Your task to perform on an android device: toggle translation in the chrome app Image 0: 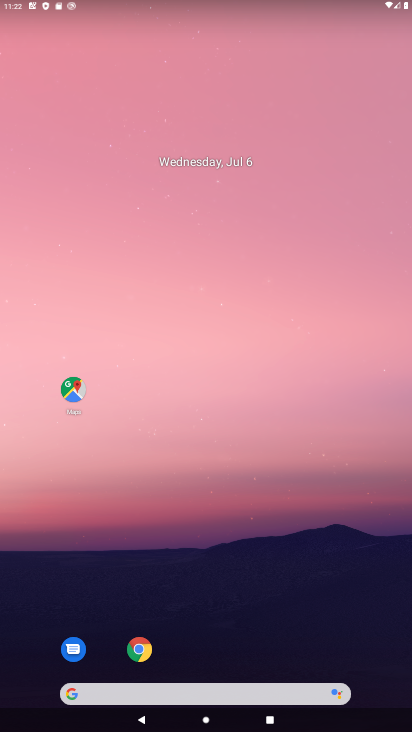
Step 0: drag from (375, 665) to (187, 0)
Your task to perform on an android device: toggle translation in the chrome app Image 1: 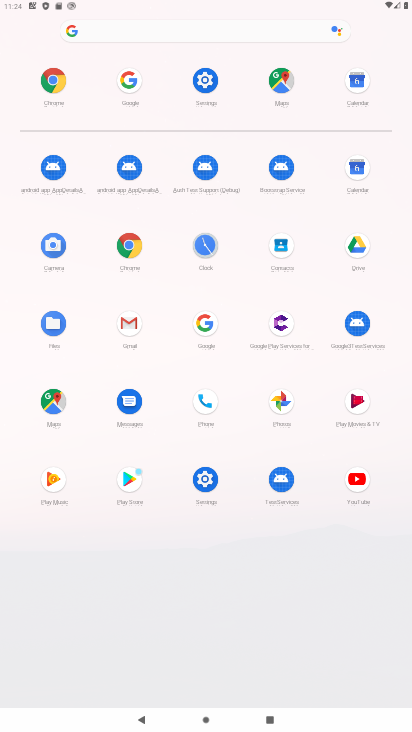
Step 1: click (132, 243)
Your task to perform on an android device: toggle translation in the chrome app Image 2: 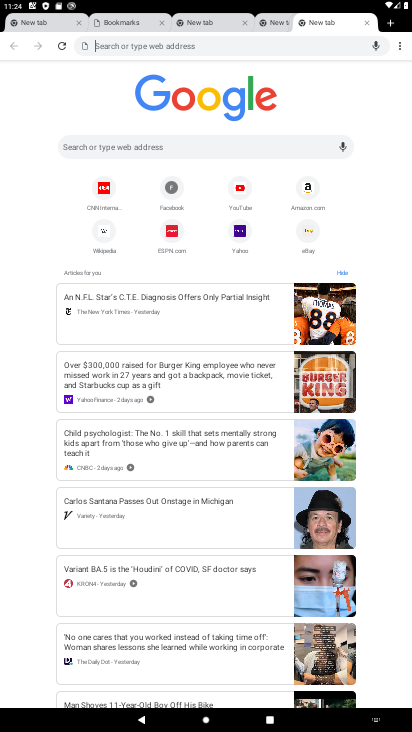
Step 2: click (400, 41)
Your task to perform on an android device: toggle translation in the chrome app Image 3: 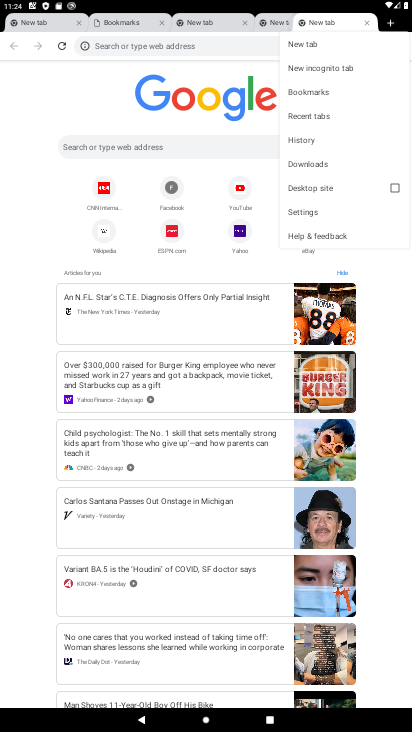
Step 3: click (311, 207)
Your task to perform on an android device: toggle translation in the chrome app Image 4: 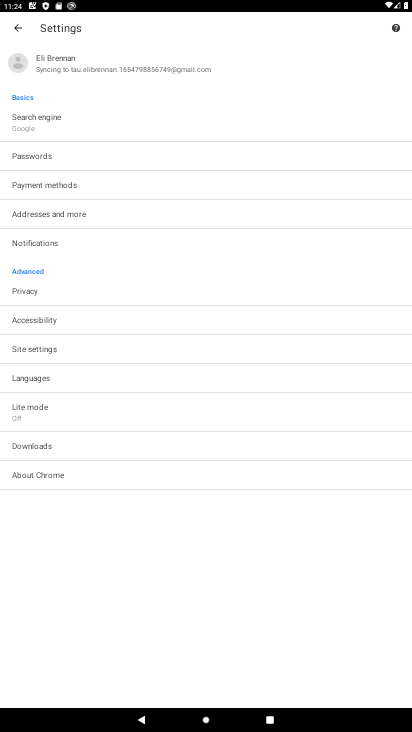
Step 4: click (83, 379)
Your task to perform on an android device: toggle translation in the chrome app Image 5: 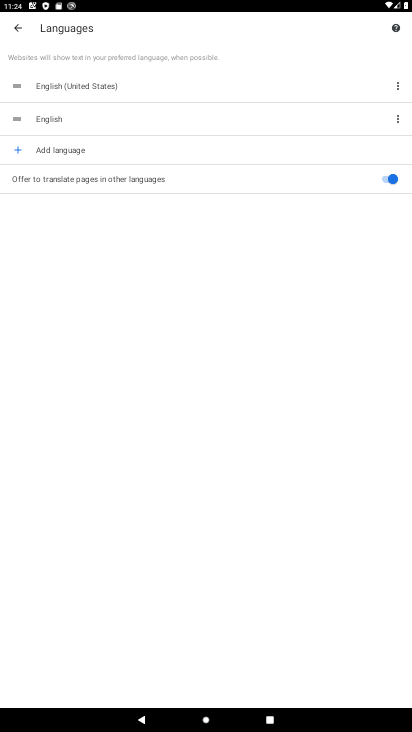
Step 5: click (385, 178)
Your task to perform on an android device: toggle translation in the chrome app Image 6: 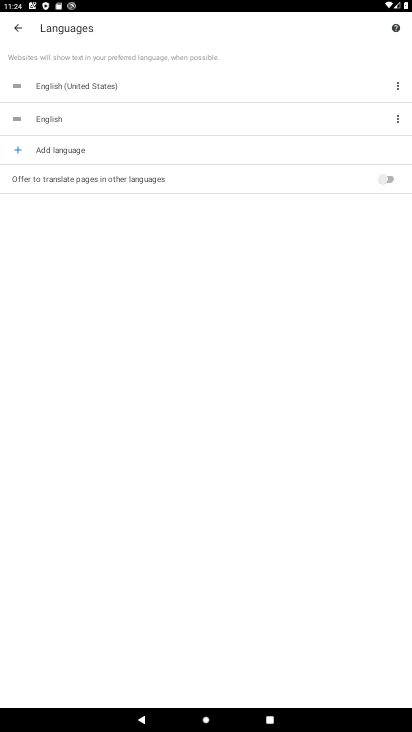
Step 6: task complete